Your task to perform on an android device: Open the map Image 0: 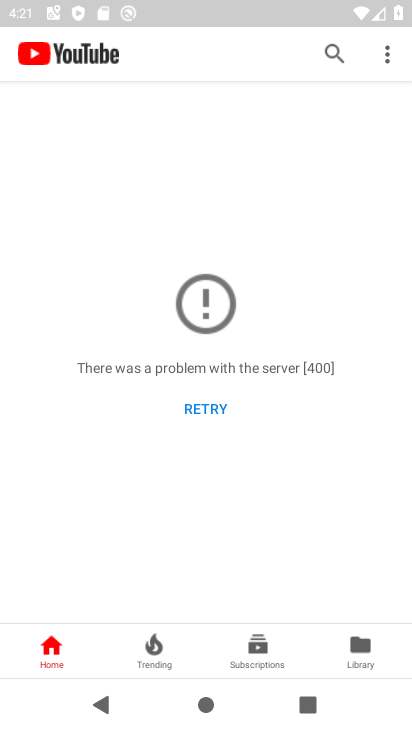
Step 0: press back button
Your task to perform on an android device: Open the map Image 1: 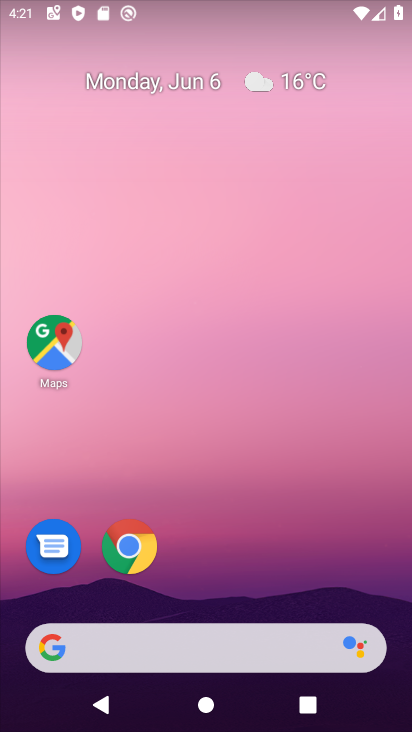
Step 1: drag from (206, 624) to (411, 422)
Your task to perform on an android device: Open the map Image 2: 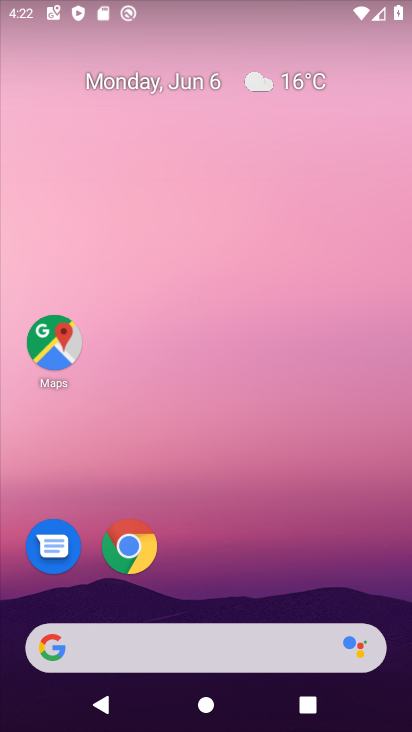
Step 2: drag from (264, 589) to (321, 10)
Your task to perform on an android device: Open the map Image 3: 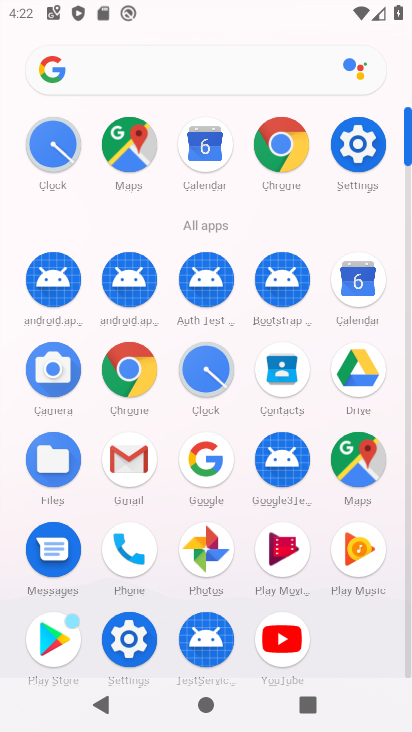
Step 3: click (357, 483)
Your task to perform on an android device: Open the map Image 4: 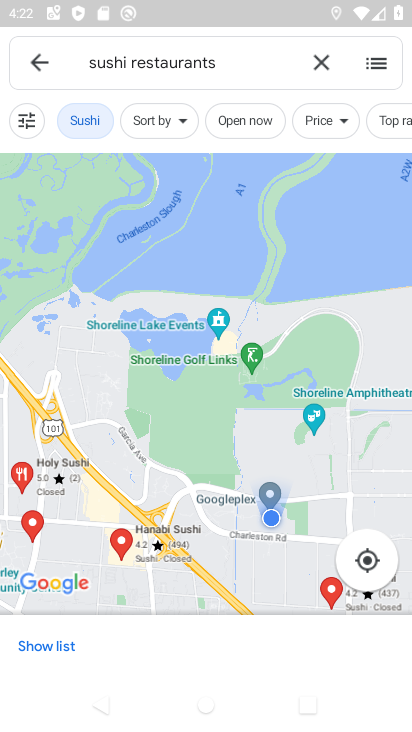
Step 4: task complete